Your task to perform on an android device: When is my next meeting? Image 0: 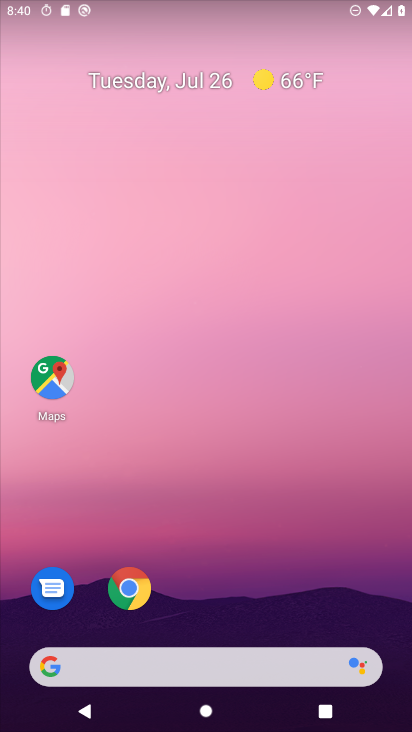
Step 0: drag from (237, 726) to (237, 84)
Your task to perform on an android device: When is my next meeting? Image 1: 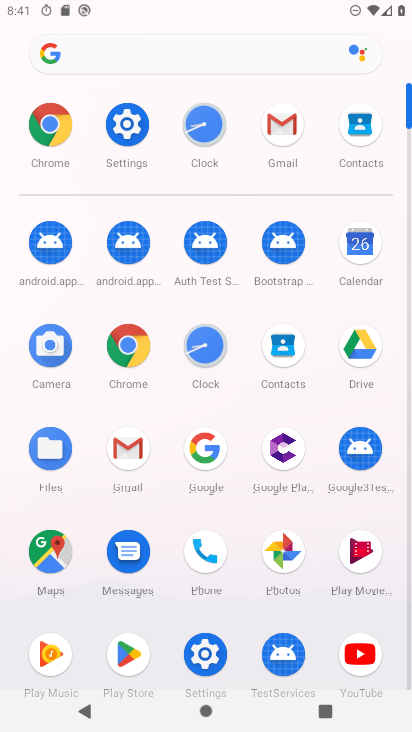
Step 1: click (360, 245)
Your task to perform on an android device: When is my next meeting? Image 2: 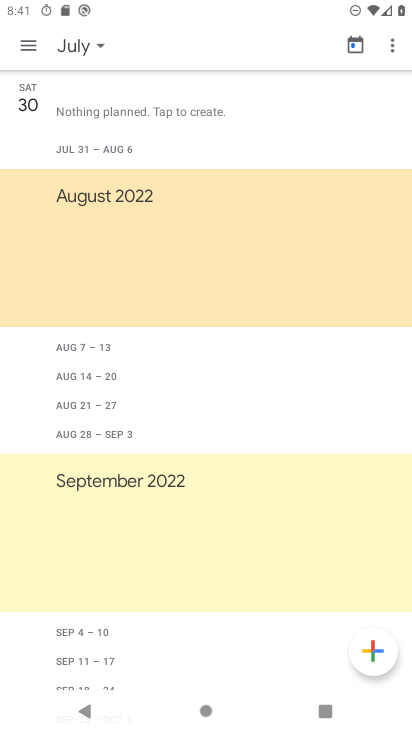
Step 2: click (91, 45)
Your task to perform on an android device: When is my next meeting? Image 3: 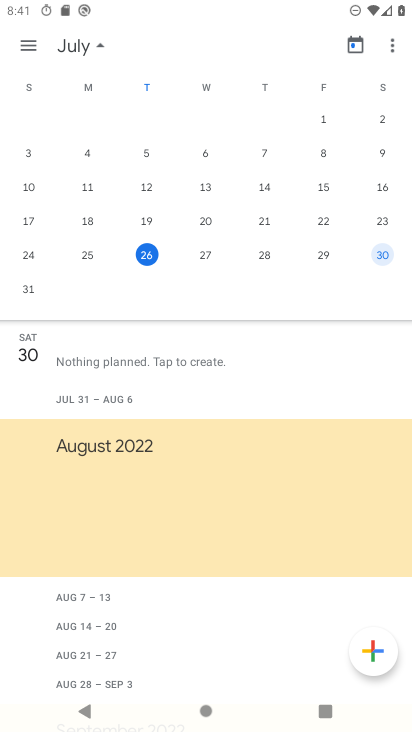
Step 3: click (206, 253)
Your task to perform on an android device: When is my next meeting? Image 4: 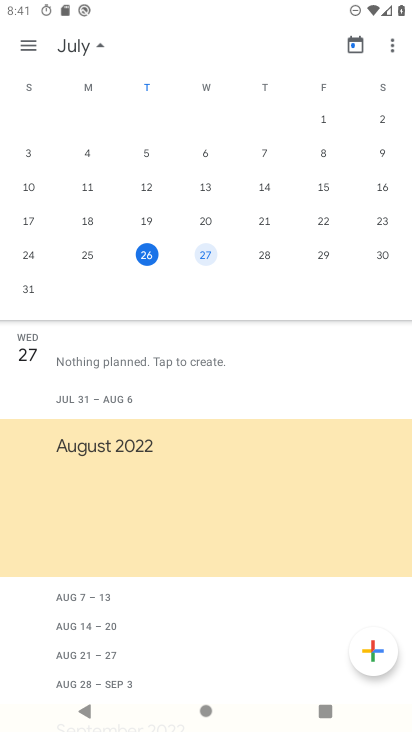
Step 4: click (206, 253)
Your task to perform on an android device: When is my next meeting? Image 5: 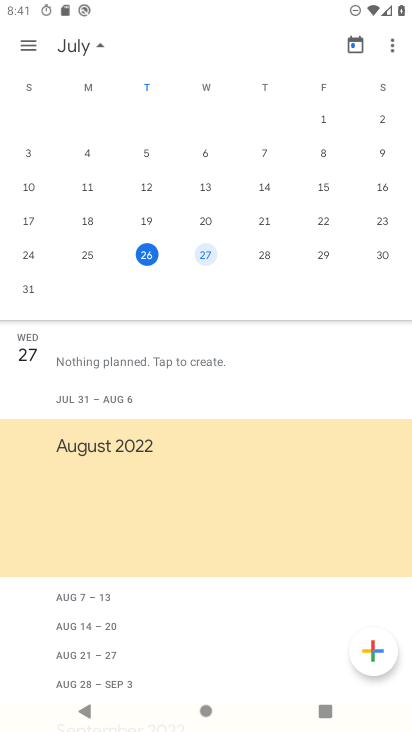
Step 5: click (206, 253)
Your task to perform on an android device: When is my next meeting? Image 6: 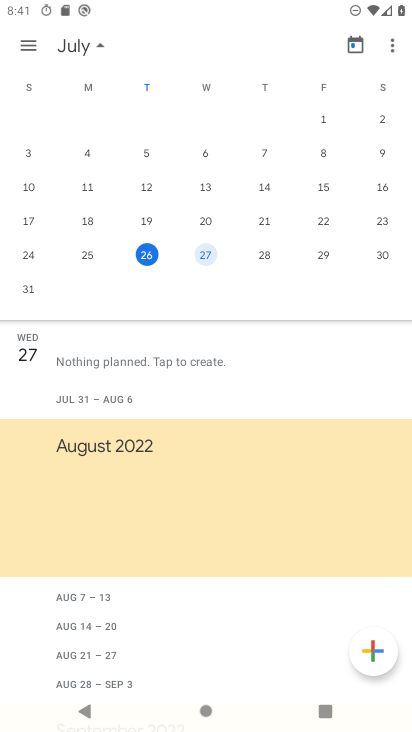
Step 6: click (207, 251)
Your task to perform on an android device: When is my next meeting? Image 7: 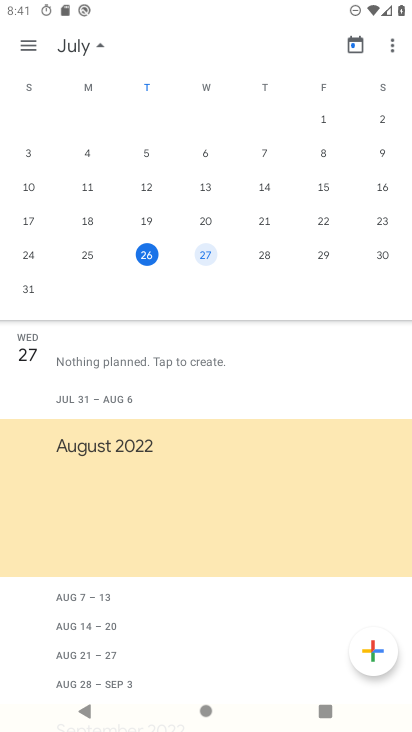
Step 7: click (32, 46)
Your task to perform on an android device: When is my next meeting? Image 8: 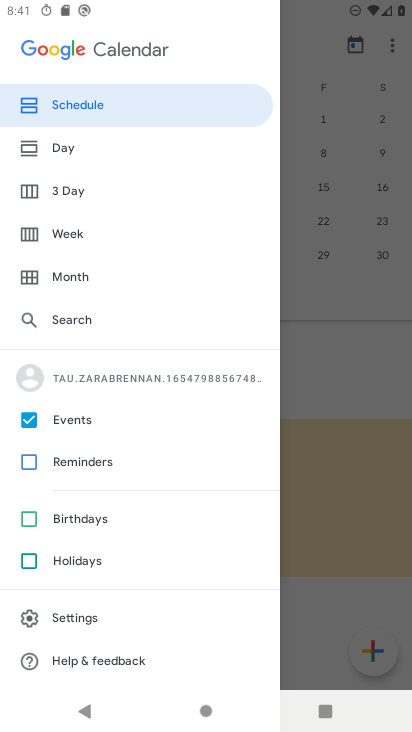
Step 8: click (30, 560)
Your task to perform on an android device: When is my next meeting? Image 9: 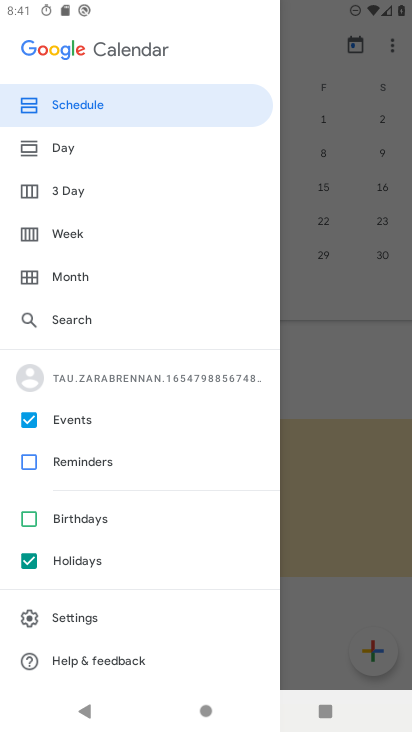
Step 9: click (32, 516)
Your task to perform on an android device: When is my next meeting? Image 10: 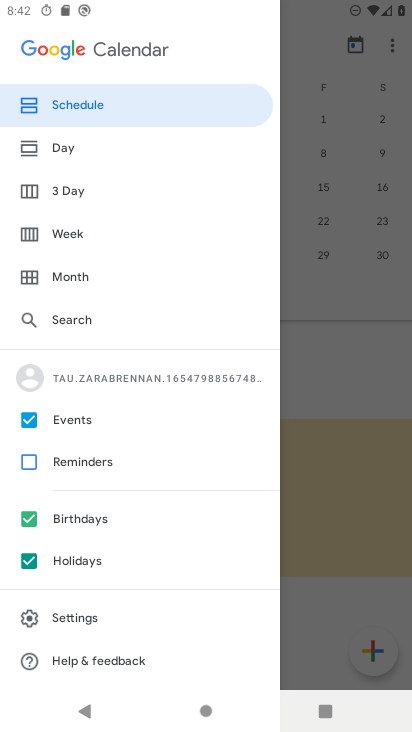
Step 10: click (31, 463)
Your task to perform on an android device: When is my next meeting? Image 11: 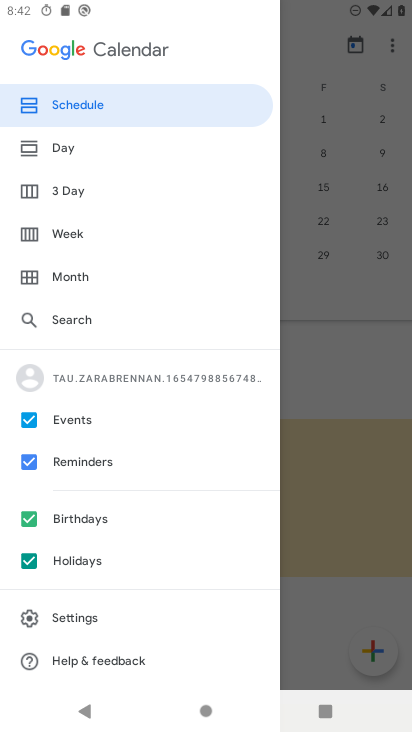
Step 11: click (343, 130)
Your task to perform on an android device: When is my next meeting? Image 12: 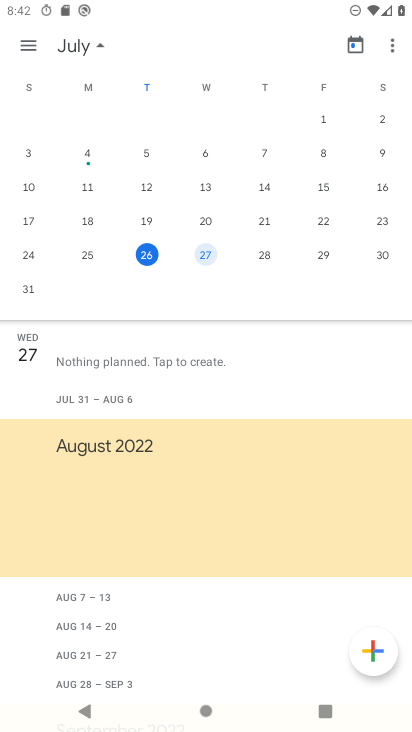
Step 12: click (204, 249)
Your task to perform on an android device: When is my next meeting? Image 13: 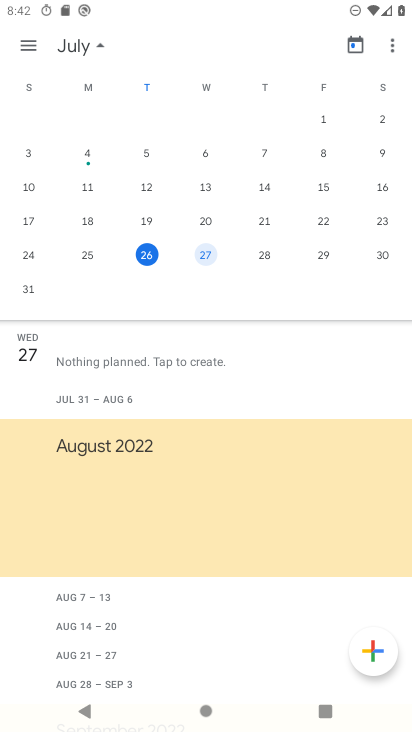
Step 13: click (204, 249)
Your task to perform on an android device: When is my next meeting? Image 14: 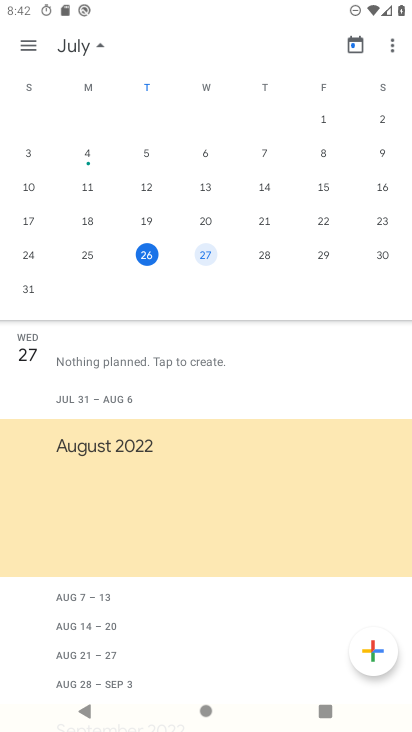
Step 14: task complete